Your task to perform on an android device: toggle javascript in the chrome app Image 0: 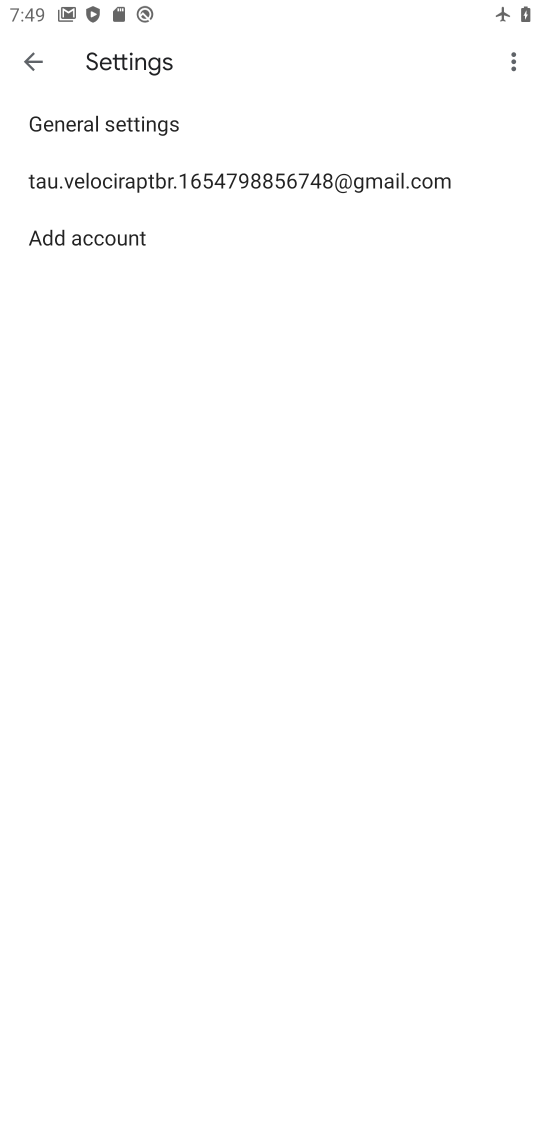
Step 0: press home button
Your task to perform on an android device: toggle javascript in the chrome app Image 1: 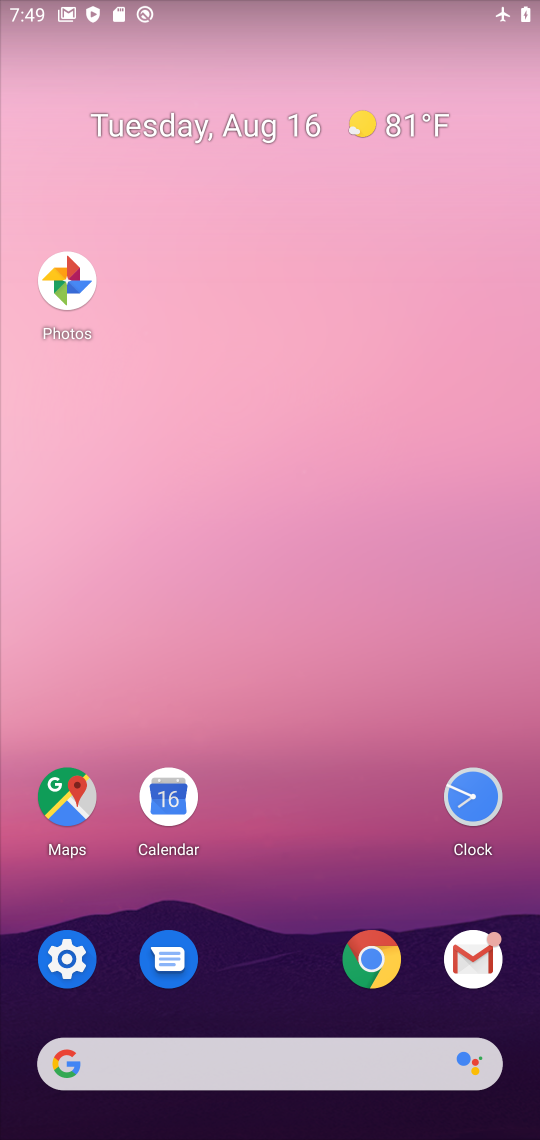
Step 1: click (372, 962)
Your task to perform on an android device: toggle javascript in the chrome app Image 2: 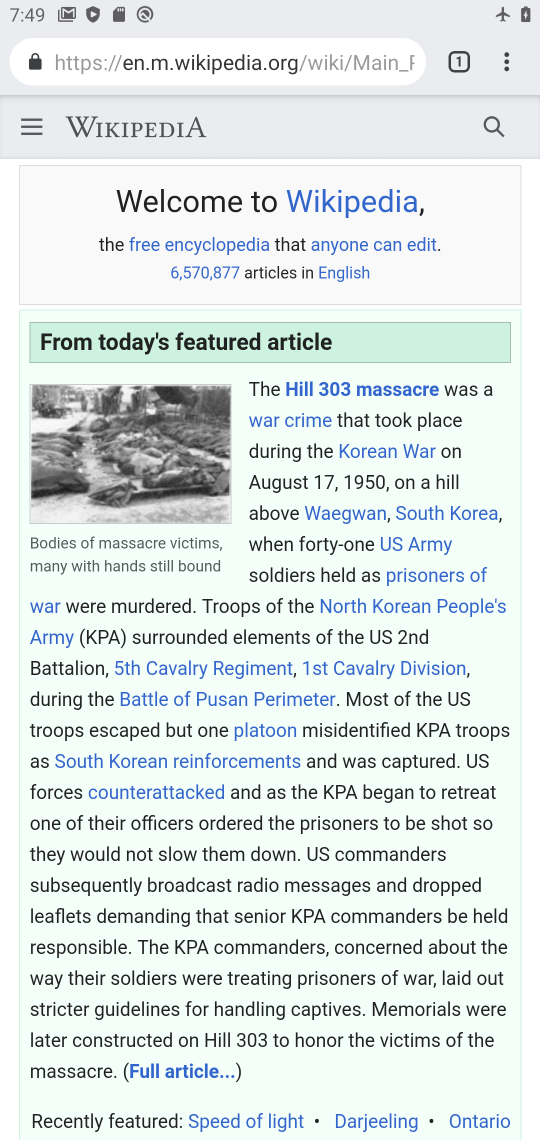
Step 2: click (500, 57)
Your task to perform on an android device: toggle javascript in the chrome app Image 3: 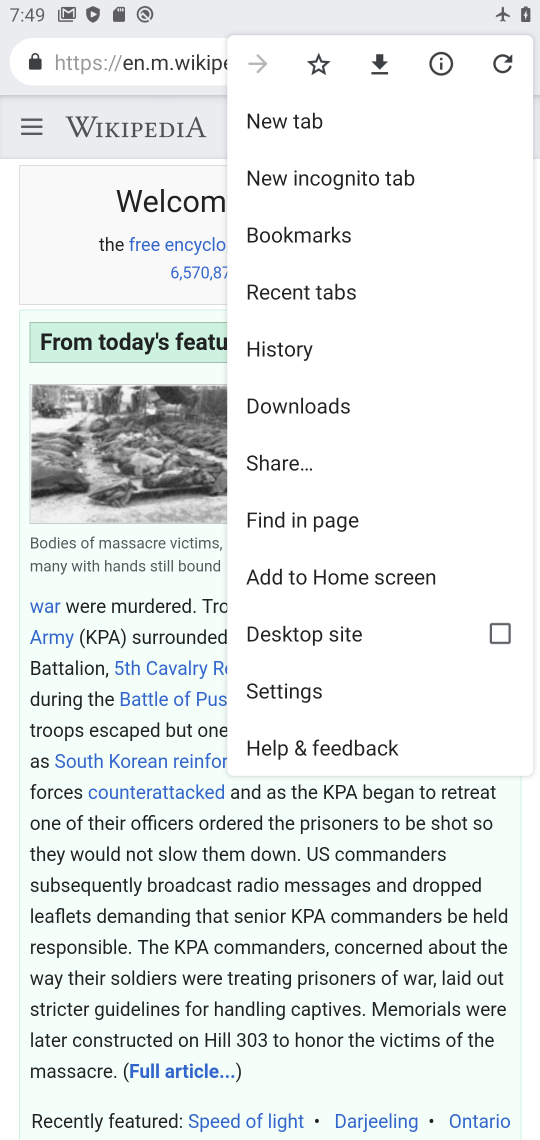
Step 3: click (289, 699)
Your task to perform on an android device: toggle javascript in the chrome app Image 4: 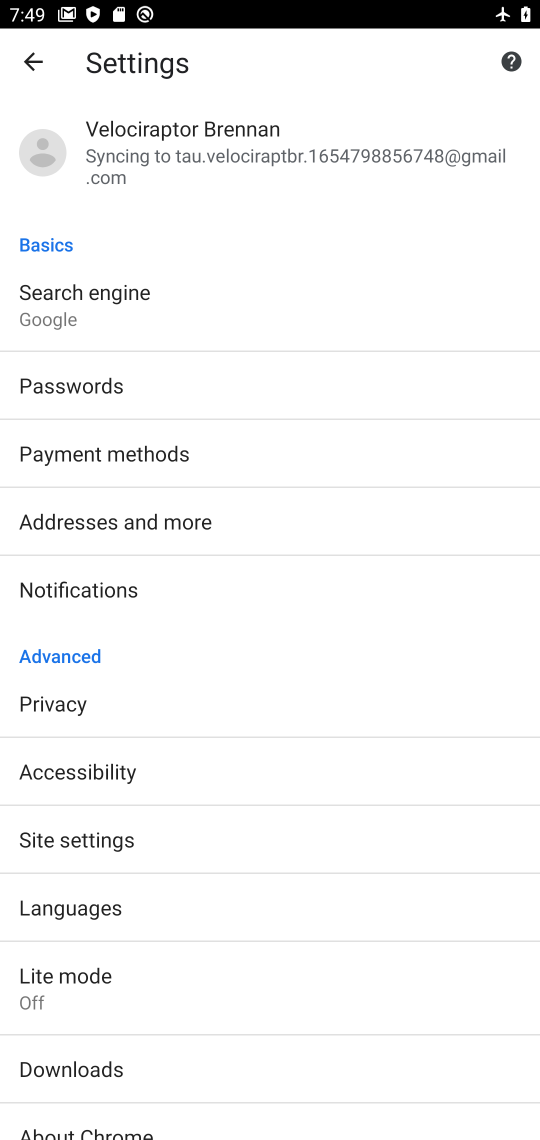
Step 4: click (93, 830)
Your task to perform on an android device: toggle javascript in the chrome app Image 5: 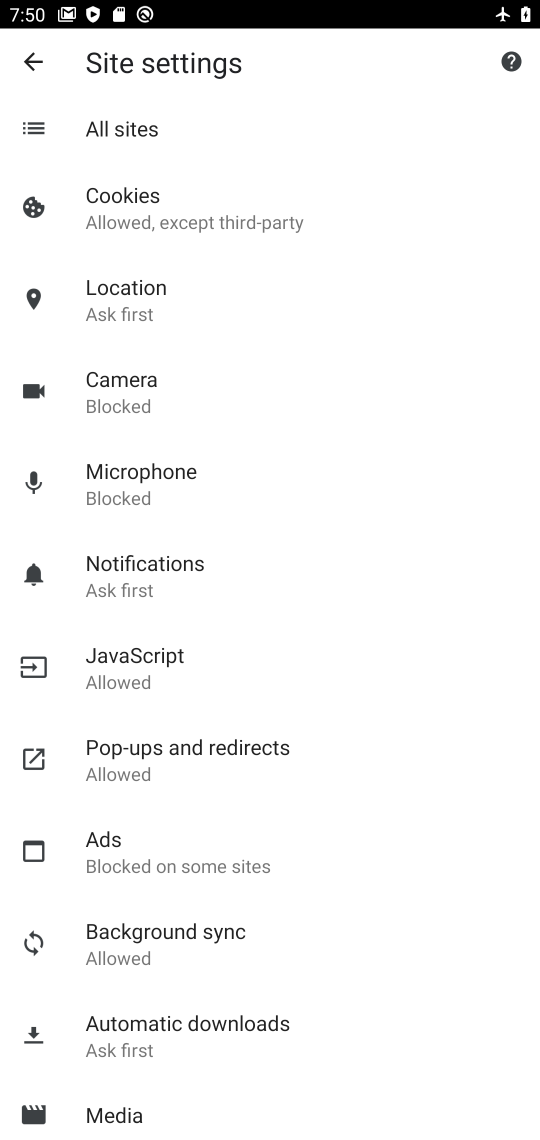
Step 5: click (126, 652)
Your task to perform on an android device: toggle javascript in the chrome app Image 6: 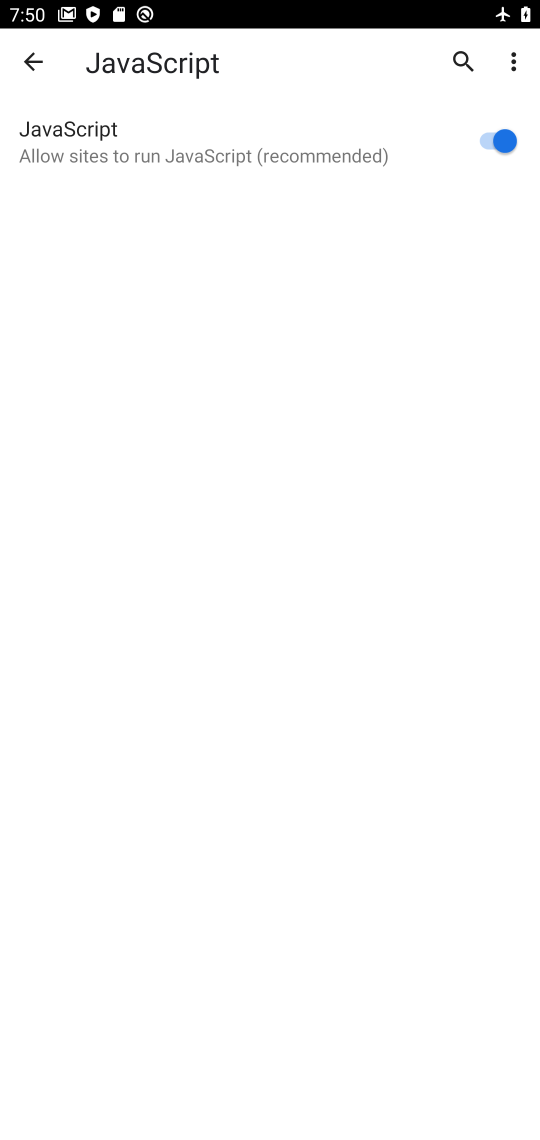
Step 6: click (511, 146)
Your task to perform on an android device: toggle javascript in the chrome app Image 7: 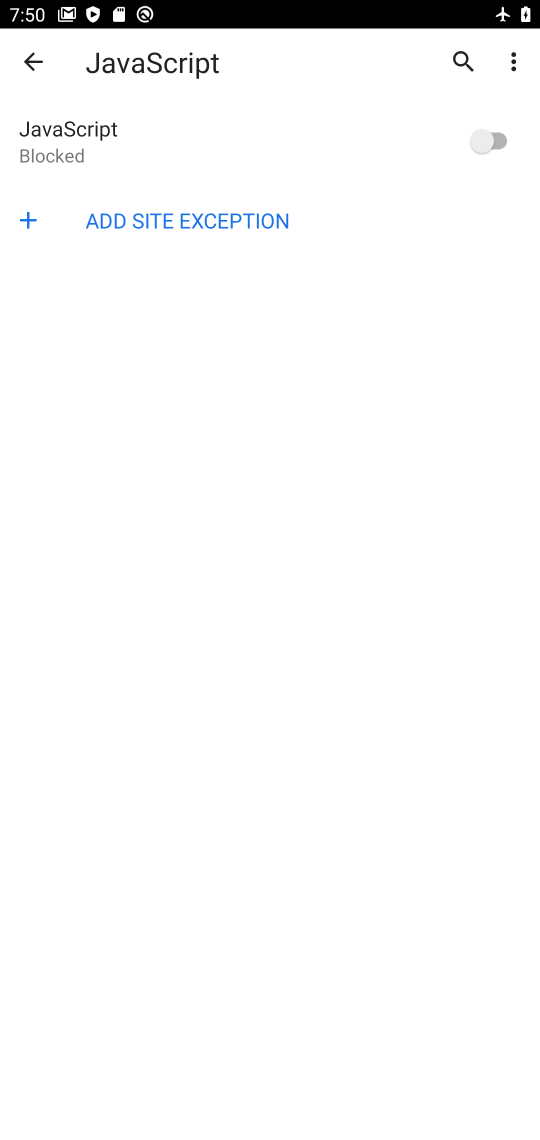
Step 7: task complete